Your task to perform on an android device: Search for razer kraken on amazon.com, select the first entry, and add it to the cart. Image 0: 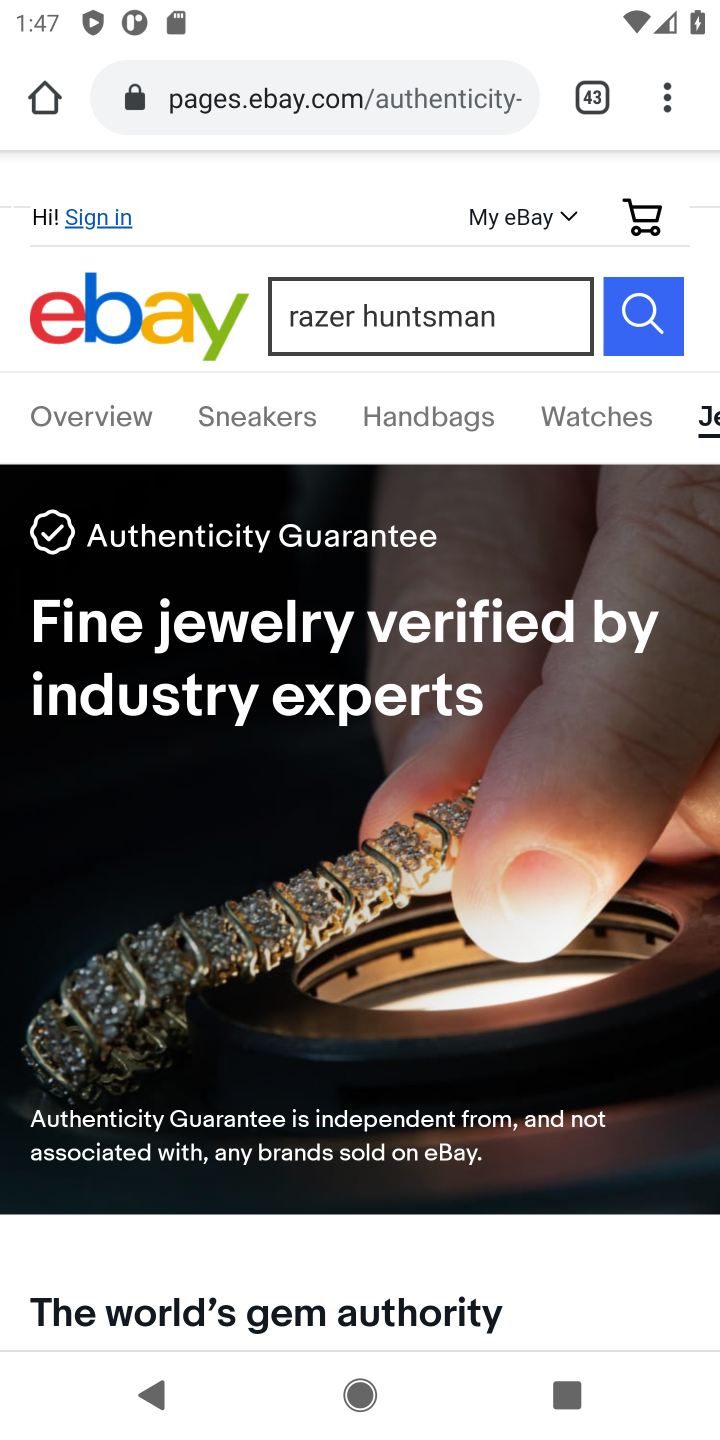
Step 0: task complete